Your task to perform on an android device: What's on my calendar today? Image 0: 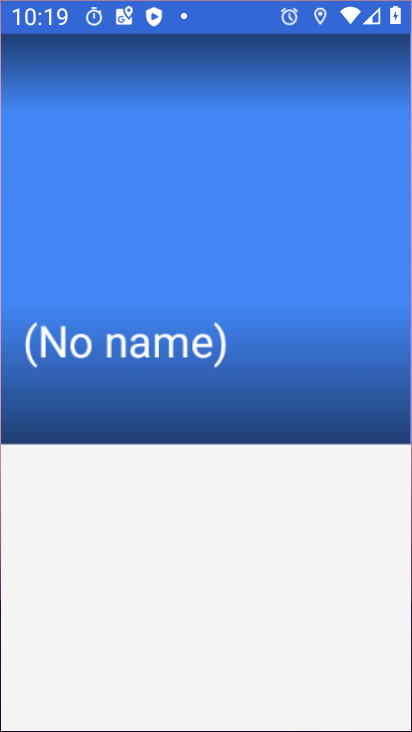
Step 0: drag from (318, 638) to (222, 261)
Your task to perform on an android device: What's on my calendar today? Image 1: 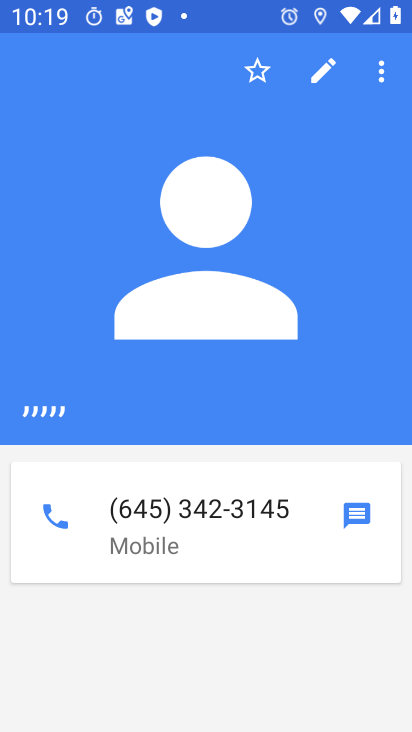
Step 1: press home button
Your task to perform on an android device: What's on my calendar today? Image 2: 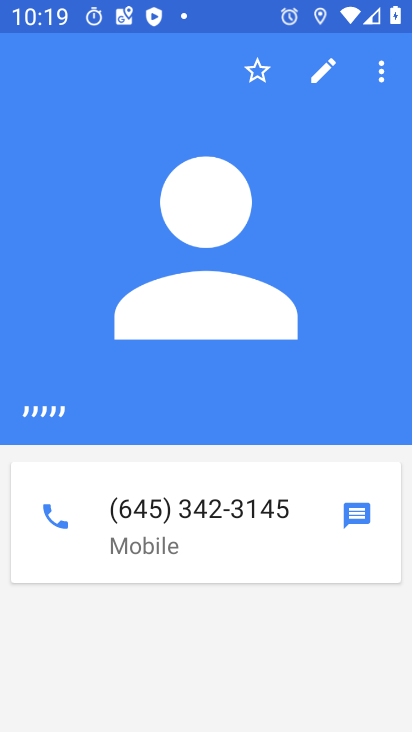
Step 2: press home button
Your task to perform on an android device: What's on my calendar today? Image 3: 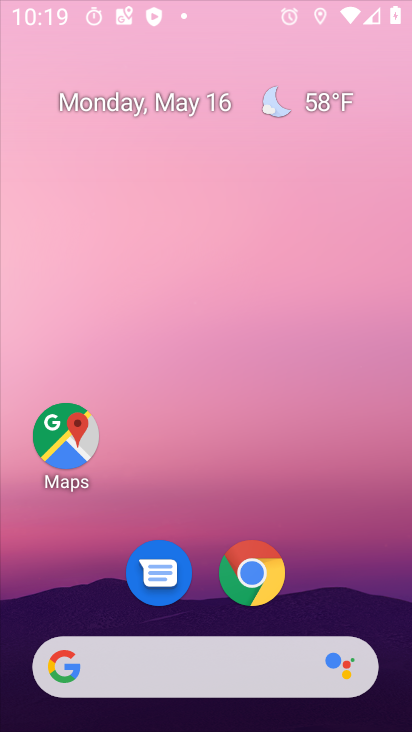
Step 3: press home button
Your task to perform on an android device: What's on my calendar today? Image 4: 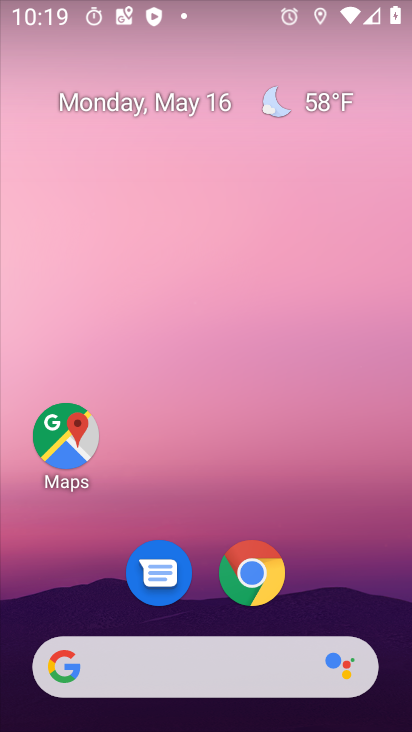
Step 4: drag from (308, 629) to (123, 228)
Your task to perform on an android device: What's on my calendar today? Image 5: 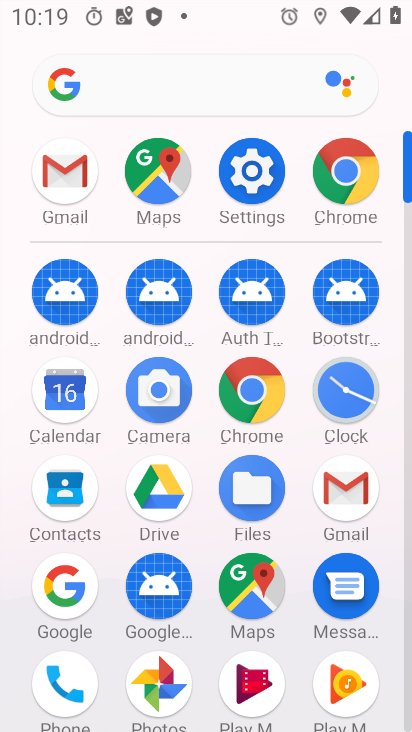
Step 5: click (88, 386)
Your task to perform on an android device: What's on my calendar today? Image 6: 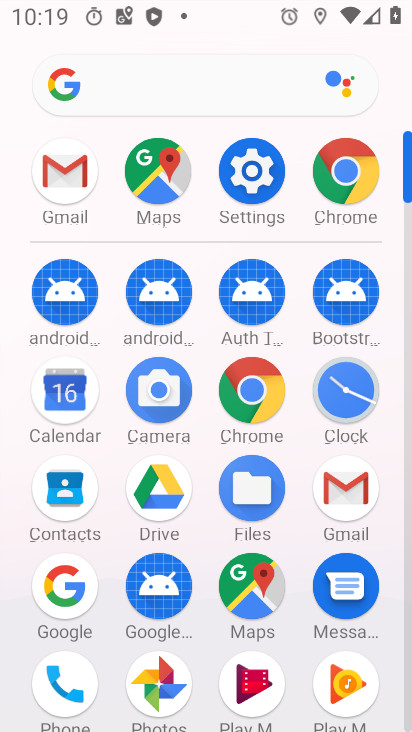
Step 6: click (70, 392)
Your task to perform on an android device: What's on my calendar today? Image 7: 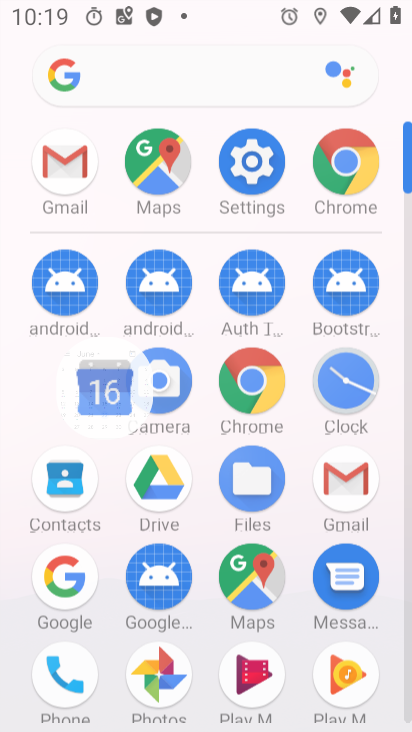
Step 7: click (70, 392)
Your task to perform on an android device: What's on my calendar today? Image 8: 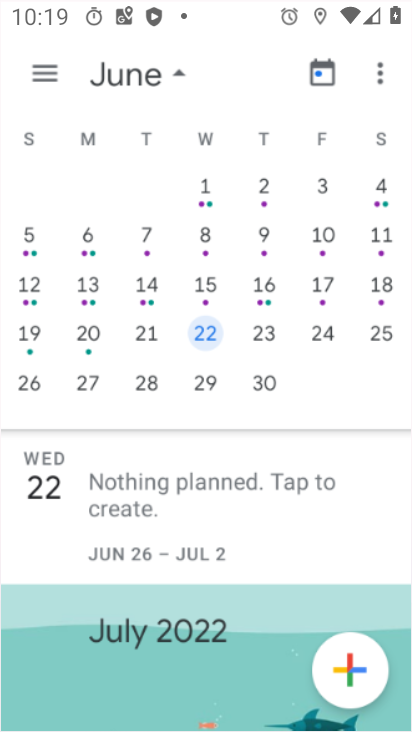
Step 8: click (69, 390)
Your task to perform on an android device: What's on my calendar today? Image 9: 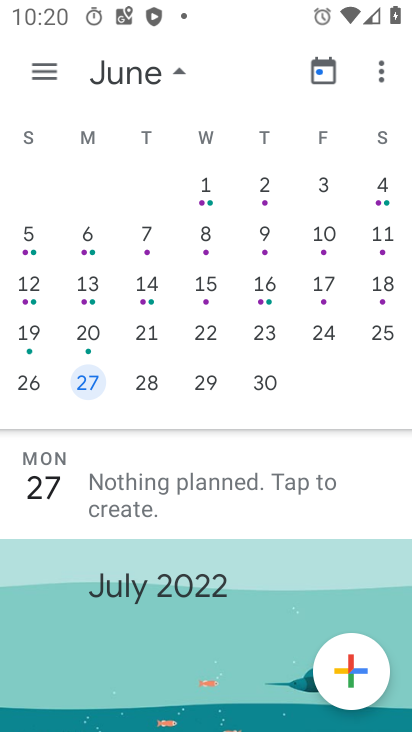
Step 9: task complete